Your task to perform on an android device: check data usage Image 0: 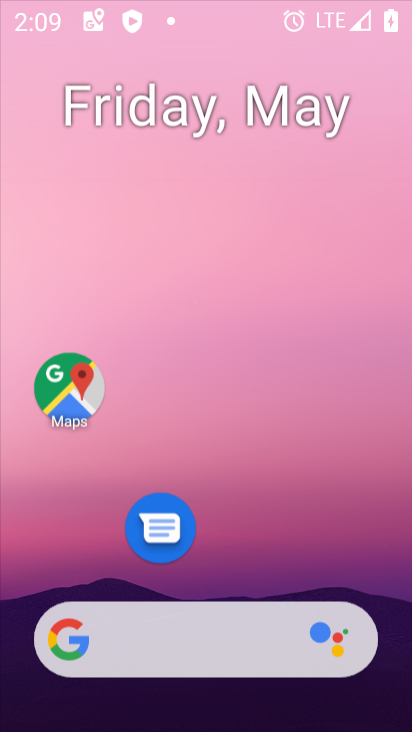
Step 0: click (253, 180)
Your task to perform on an android device: check data usage Image 1: 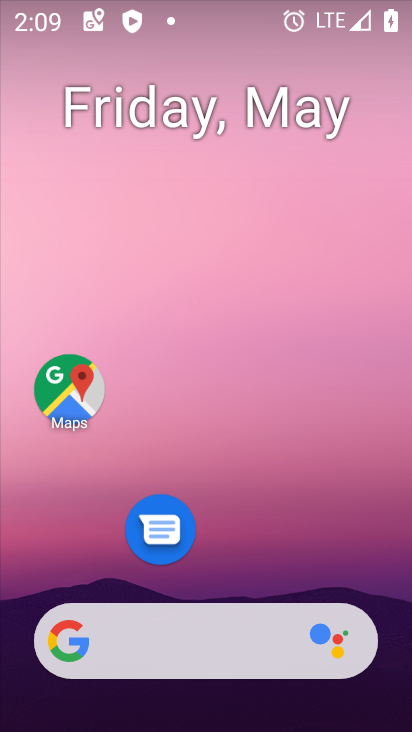
Step 1: drag from (234, 573) to (287, 72)
Your task to perform on an android device: check data usage Image 2: 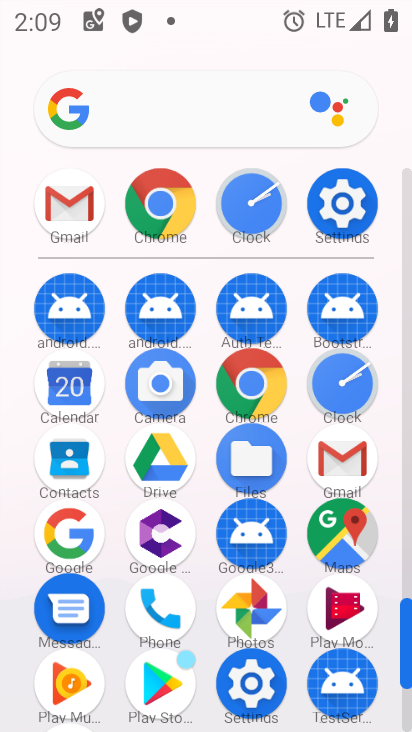
Step 2: click (350, 210)
Your task to perform on an android device: check data usage Image 3: 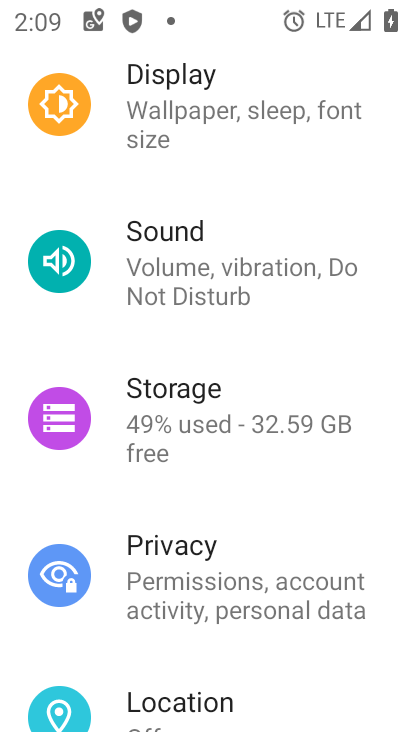
Step 3: drag from (220, 172) to (217, 584)
Your task to perform on an android device: check data usage Image 4: 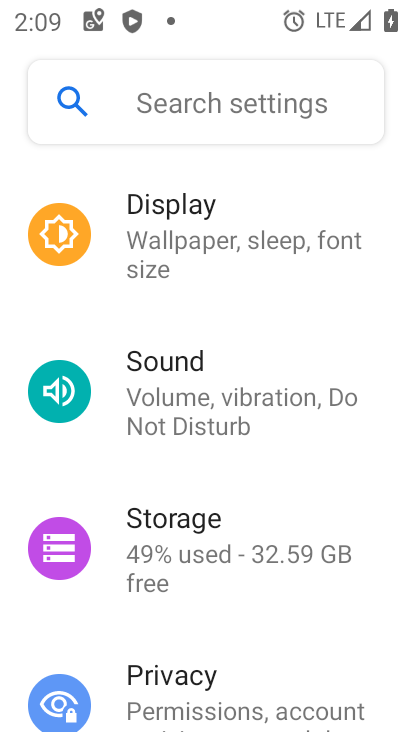
Step 4: drag from (222, 248) to (296, 697)
Your task to perform on an android device: check data usage Image 5: 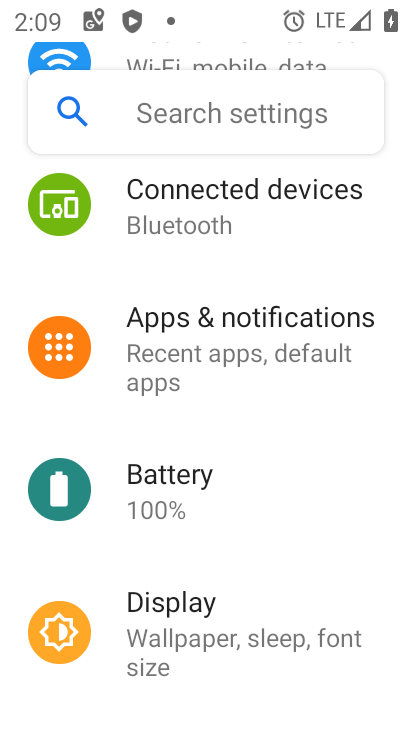
Step 5: drag from (268, 204) to (247, 729)
Your task to perform on an android device: check data usage Image 6: 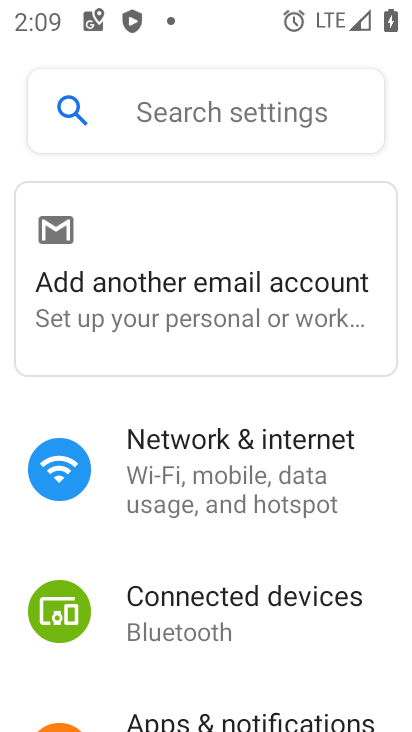
Step 6: click (213, 453)
Your task to perform on an android device: check data usage Image 7: 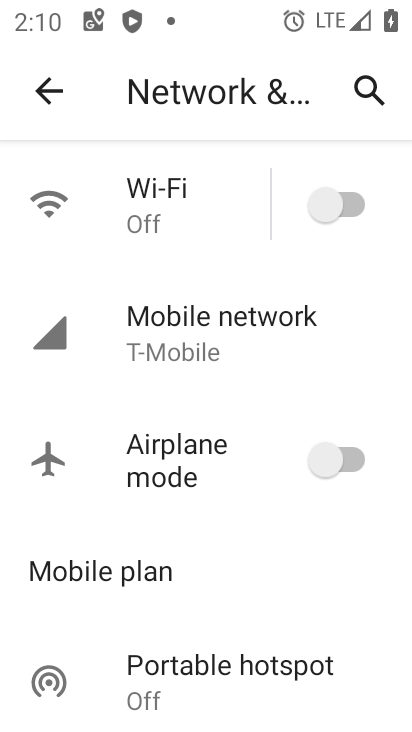
Step 7: drag from (204, 650) to (253, 322)
Your task to perform on an android device: check data usage Image 8: 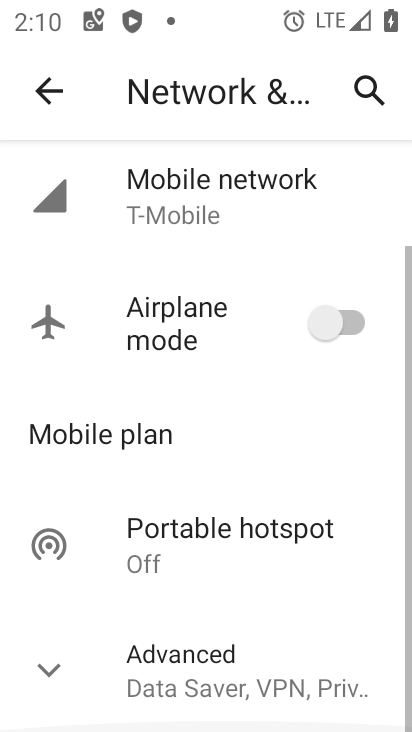
Step 8: drag from (253, 317) to (211, 581)
Your task to perform on an android device: check data usage Image 9: 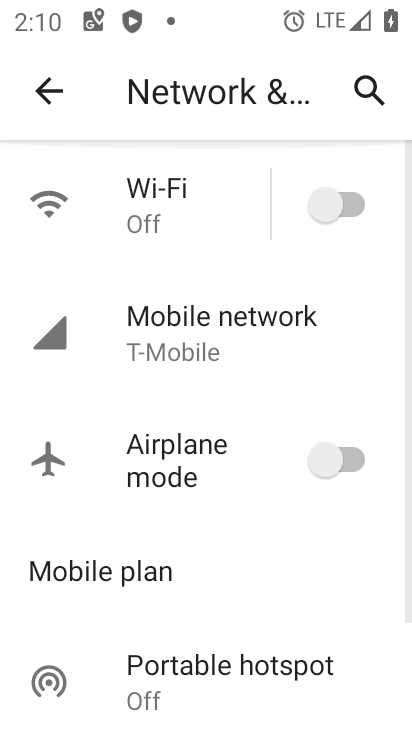
Step 9: click (235, 342)
Your task to perform on an android device: check data usage Image 10: 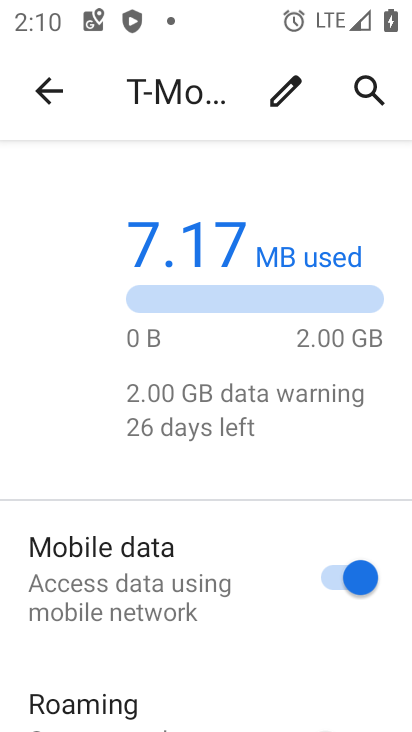
Step 10: task complete